Your task to perform on an android device: make emails show in primary in the gmail app Image 0: 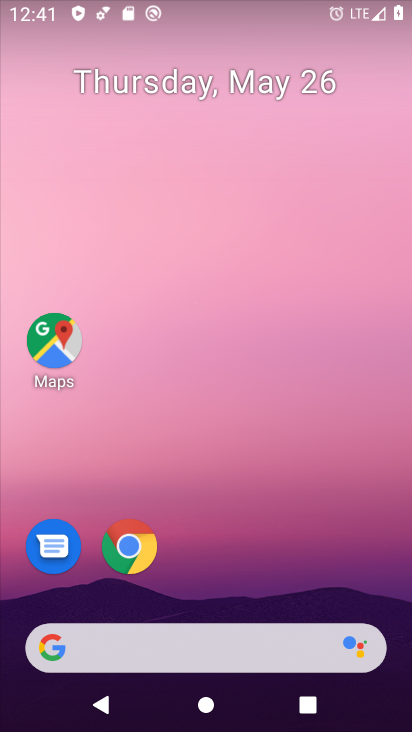
Step 0: drag from (393, 661) to (194, 104)
Your task to perform on an android device: make emails show in primary in the gmail app Image 1: 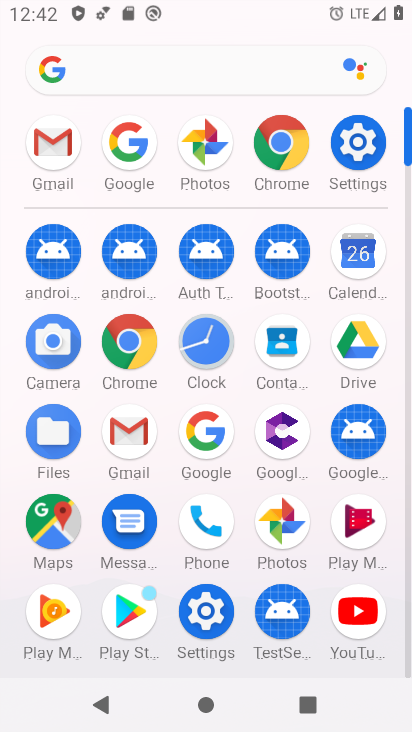
Step 1: click (138, 429)
Your task to perform on an android device: make emails show in primary in the gmail app Image 2: 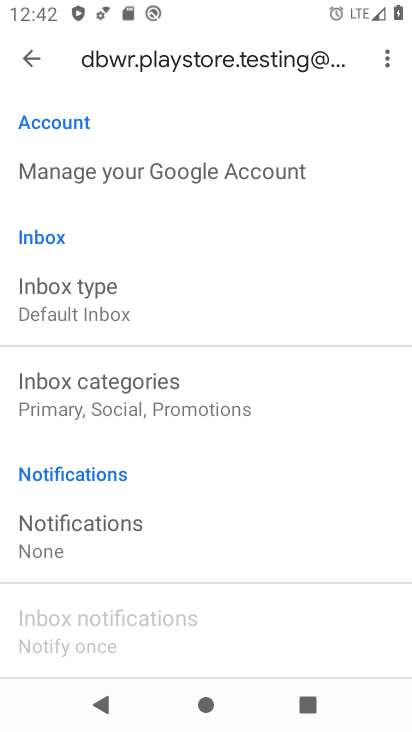
Step 2: task complete